Your task to perform on an android device: turn on notifications settings in the gmail app Image 0: 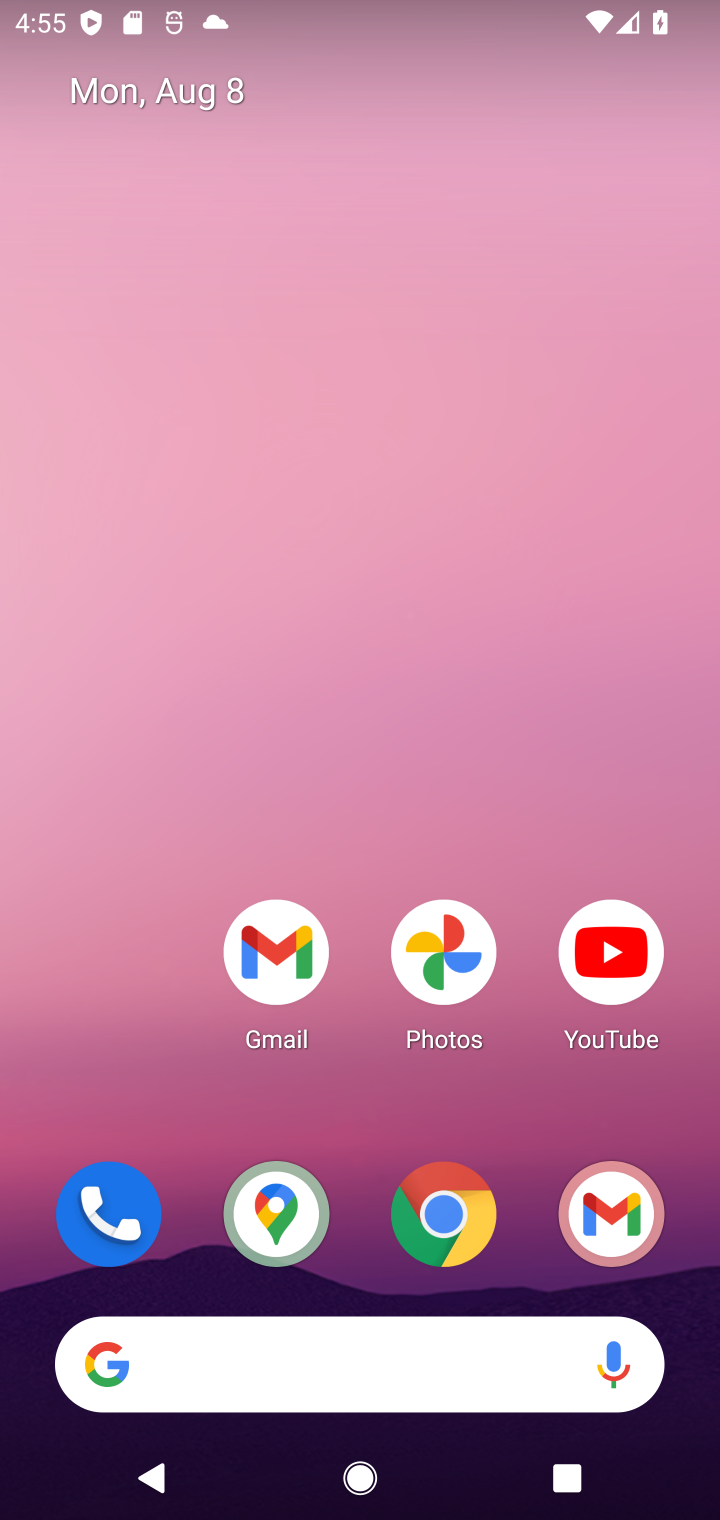
Step 0: drag from (371, 1270) to (376, 169)
Your task to perform on an android device: turn on notifications settings in the gmail app Image 1: 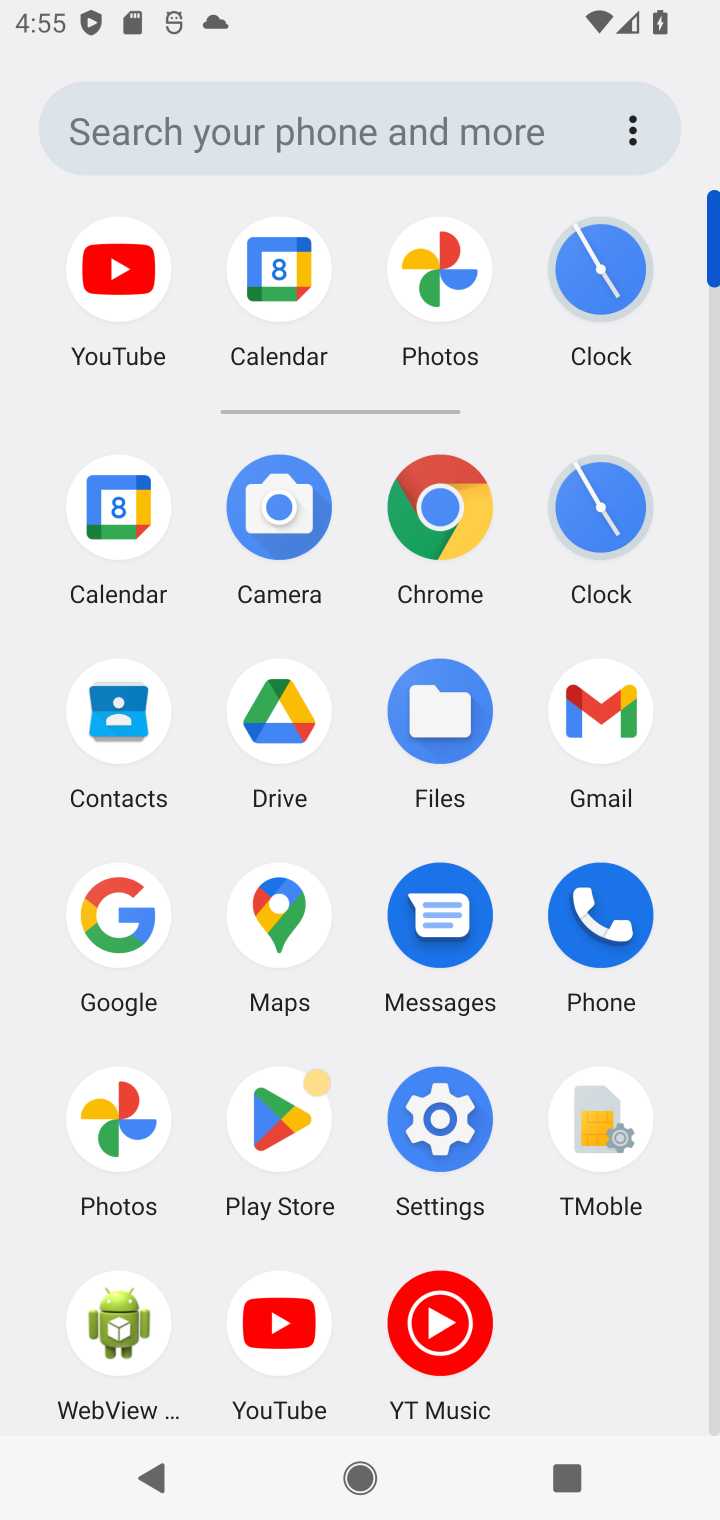
Step 1: click (597, 706)
Your task to perform on an android device: turn on notifications settings in the gmail app Image 2: 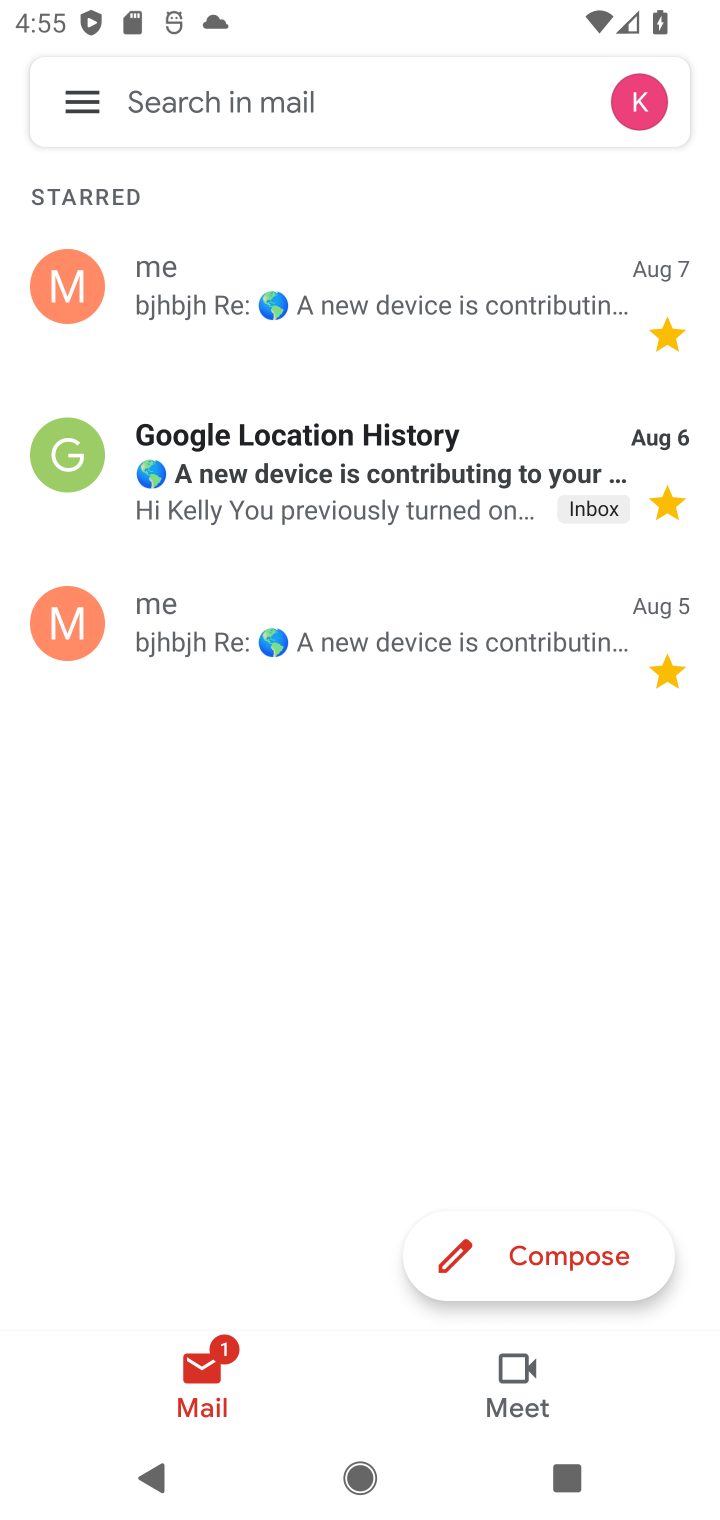
Step 2: click (77, 97)
Your task to perform on an android device: turn on notifications settings in the gmail app Image 3: 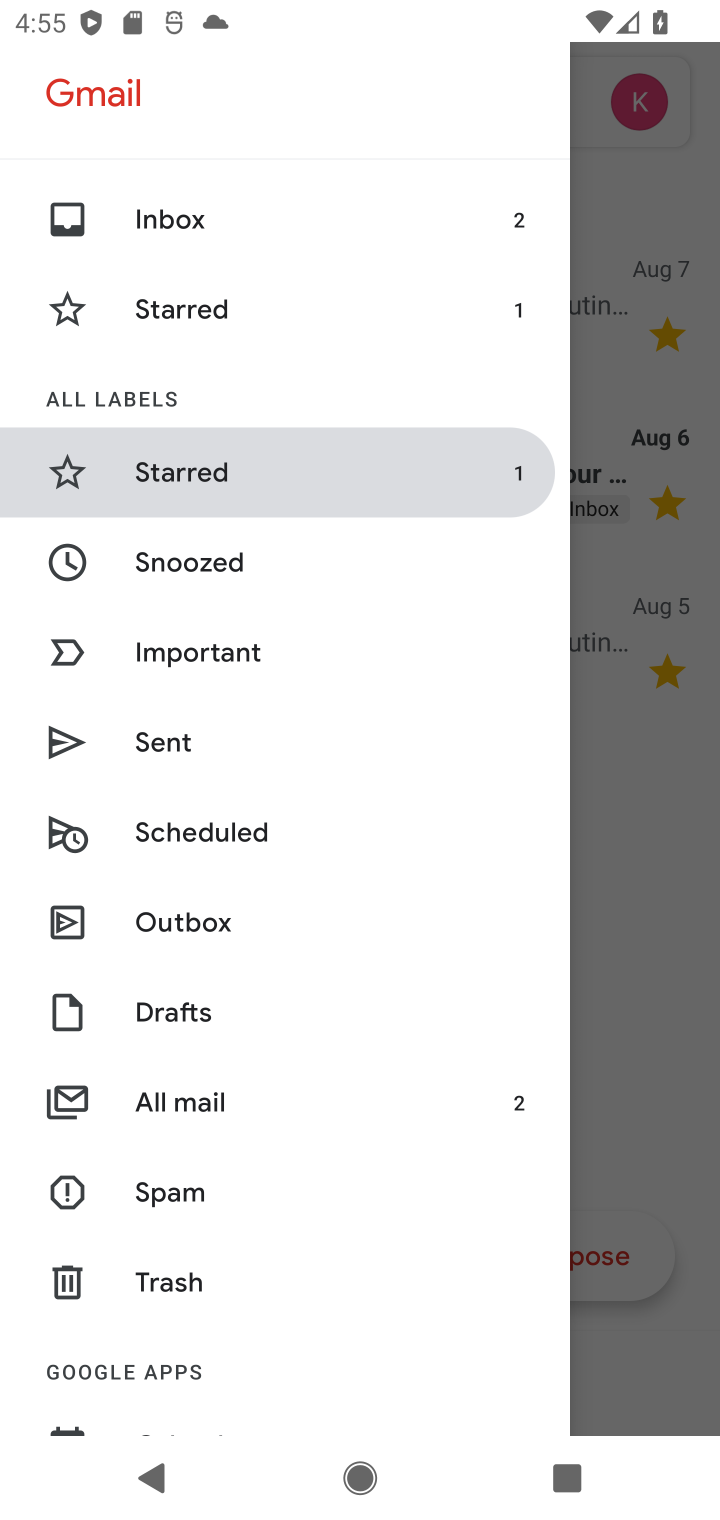
Step 3: drag from (156, 1290) to (191, 655)
Your task to perform on an android device: turn on notifications settings in the gmail app Image 4: 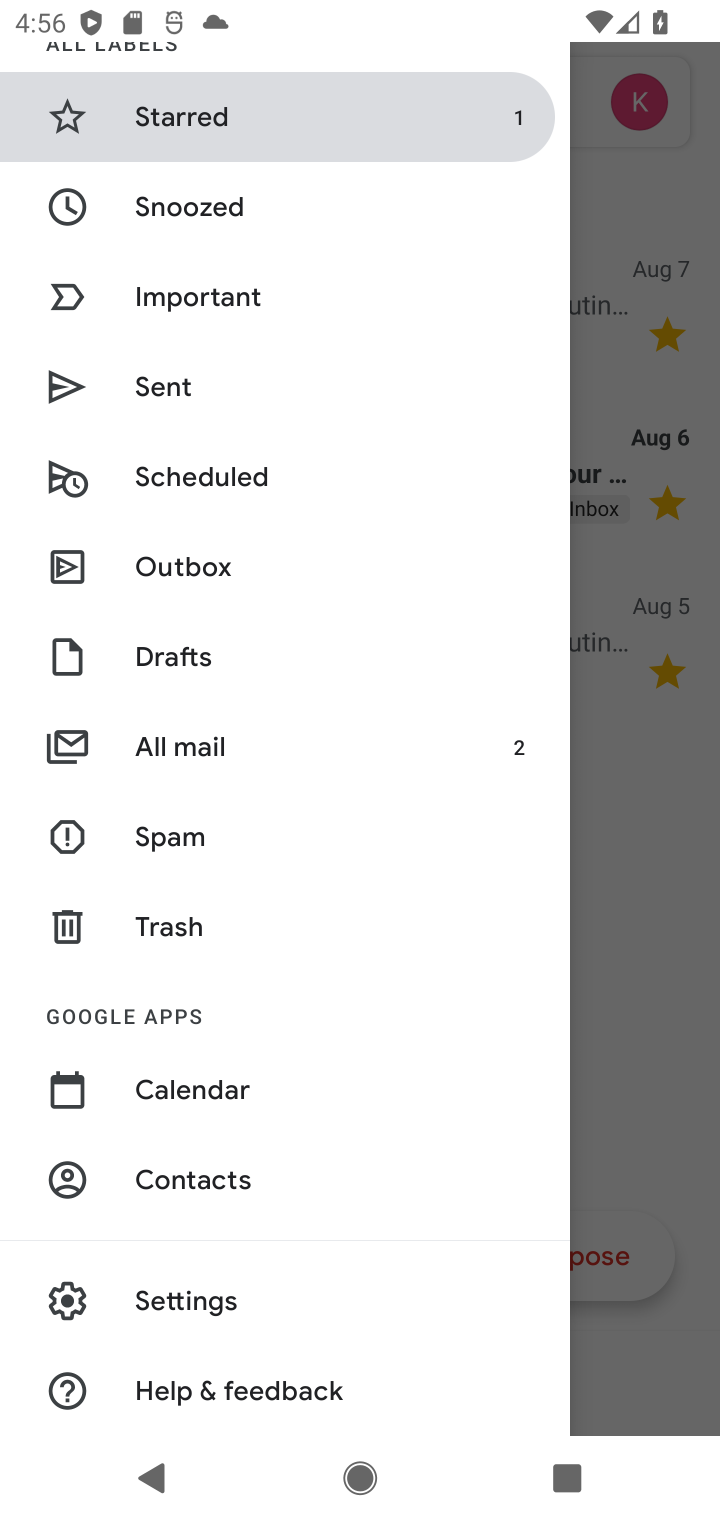
Step 4: click (186, 1306)
Your task to perform on an android device: turn on notifications settings in the gmail app Image 5: 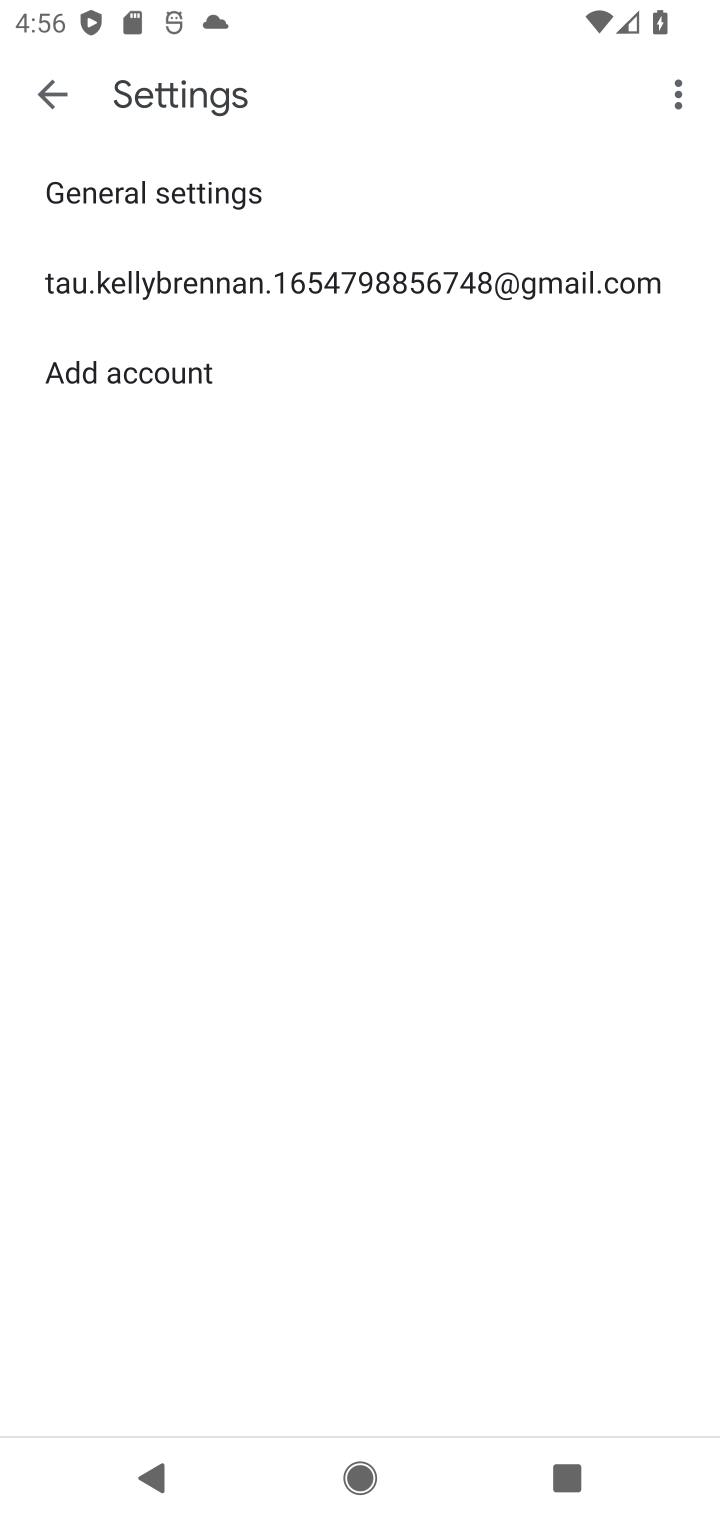
Step 5: click (374, 284)
Your task to perform on an android device: turn on notifications settings in the gmail app Image 6: 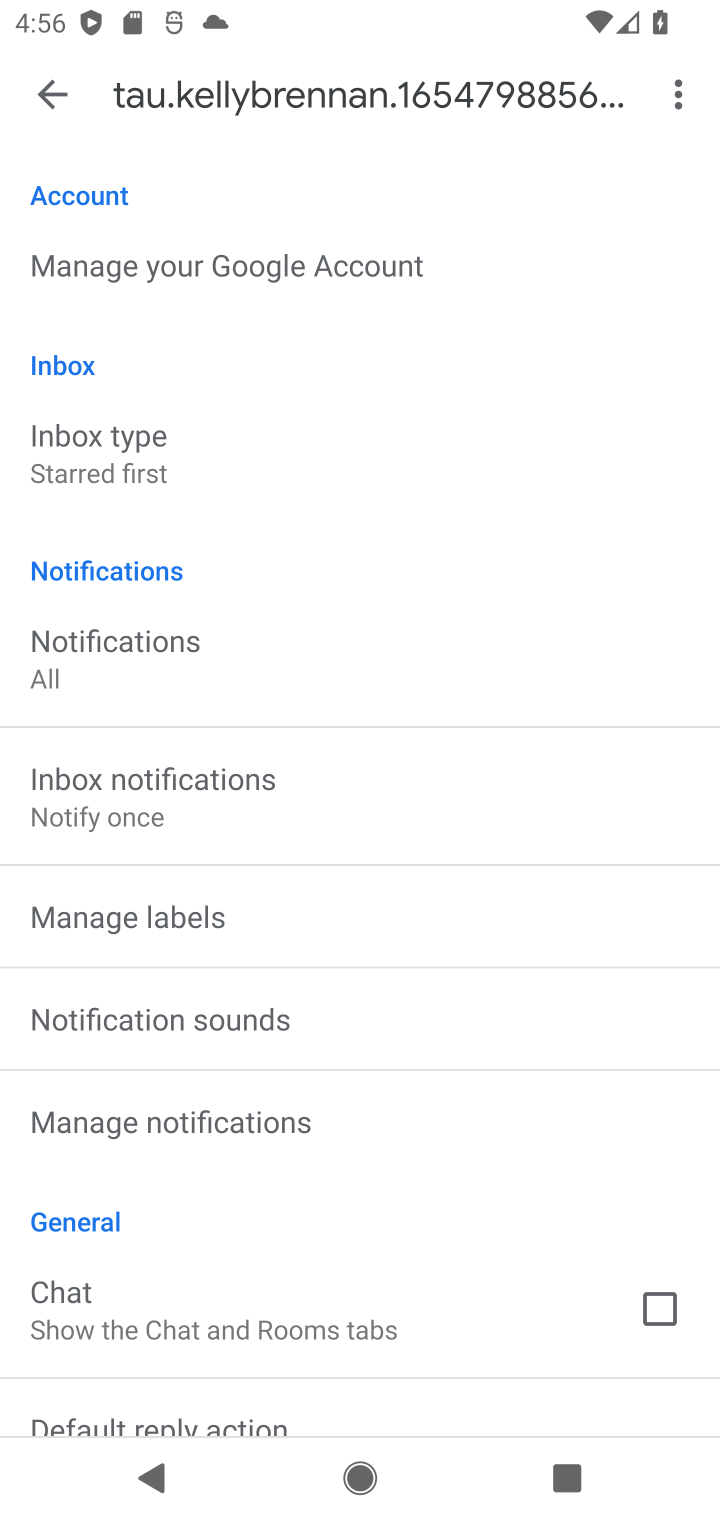
Step 6: task complete